Your task to perform on an android device: open app "Adobe Acrobat Reader: Edit PDF" Image 0: 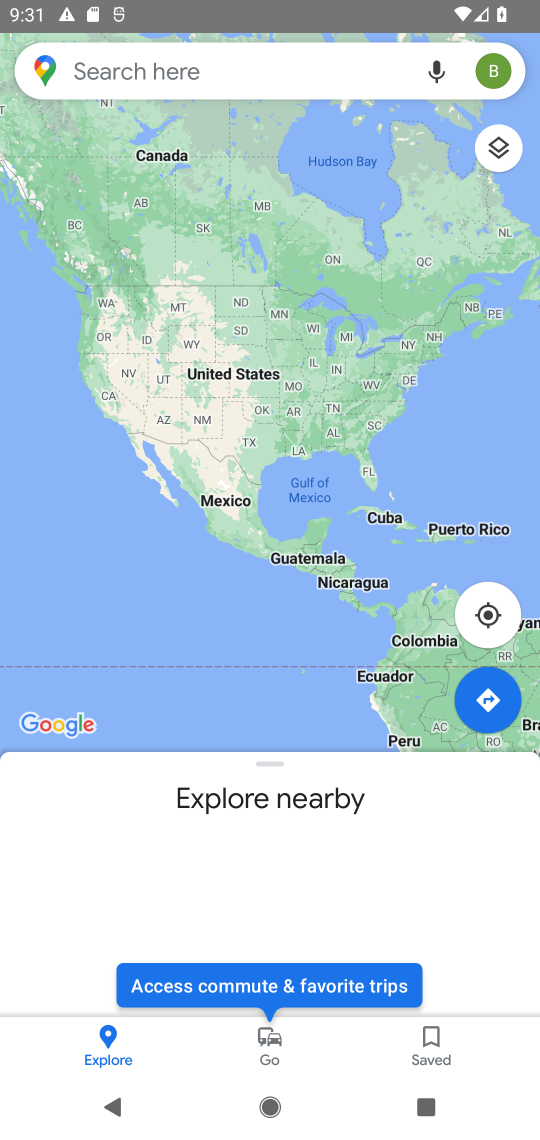
Step 0: press home button
Your task to perform on an android device: open app "Adobe Acrobat Reader: Edit PDF" Image 1: 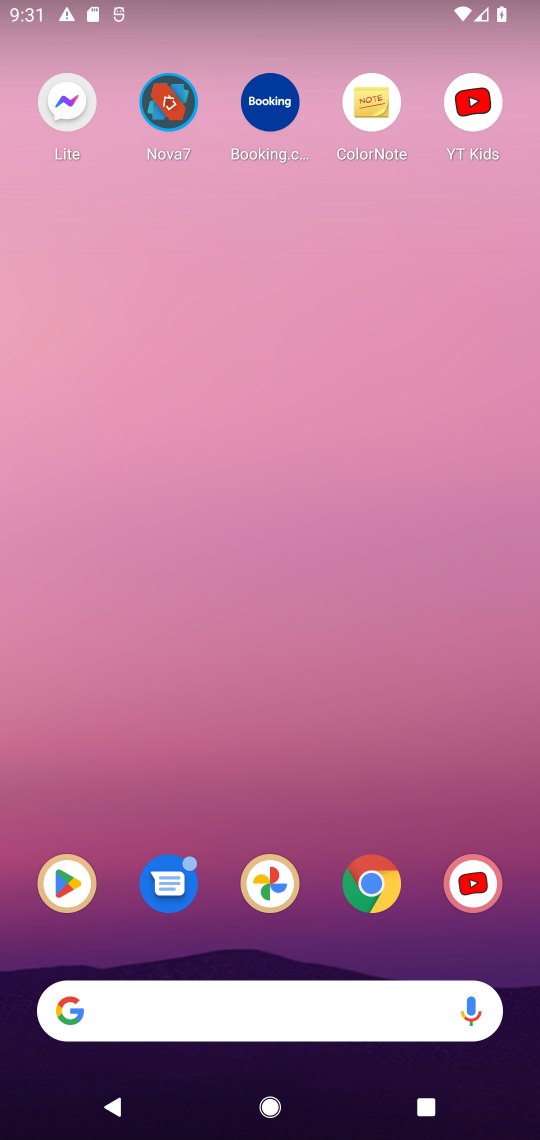
Step 1: click (46, 878)
Your task to perform on an android device: open app "Adobe Acrobat Reader: Edit PDF" Image 2: 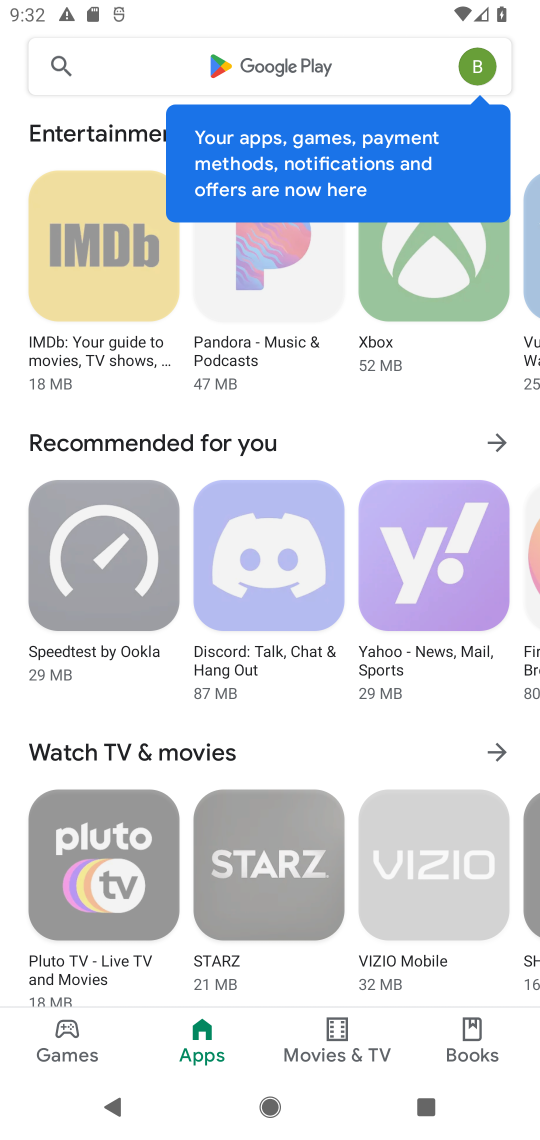
Step 2: click (199, 63)
Your task to perform on an android device: open app "Adobe Acrobat Reader: Edit PDF" Image 3: 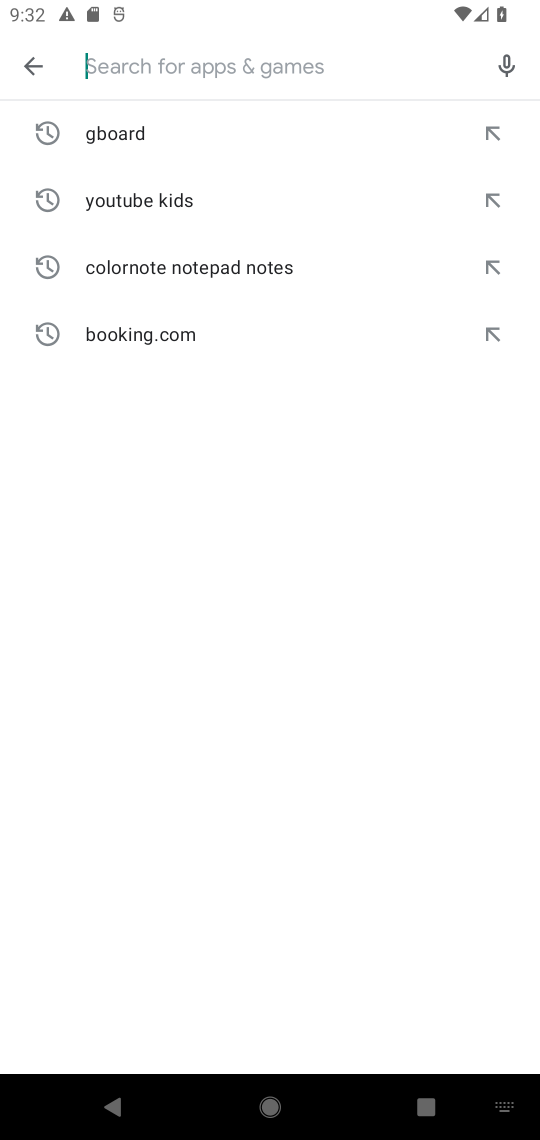
Step 3: type "Adobe Acrobat Reader"
Your task to perform on an android device: open app "Adobe Acrobat Reader: Edit PDF" Image 4: 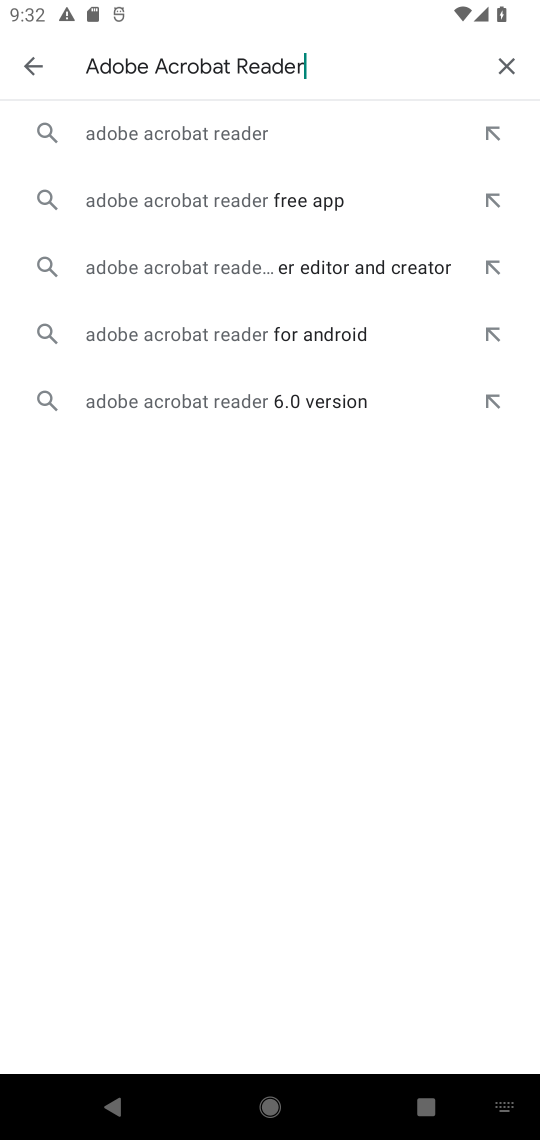
Step 4: click (194, 139)
Your task to perform on an android device: open app "Adobe Acrobat Reader: Edit PDF" Image 5: 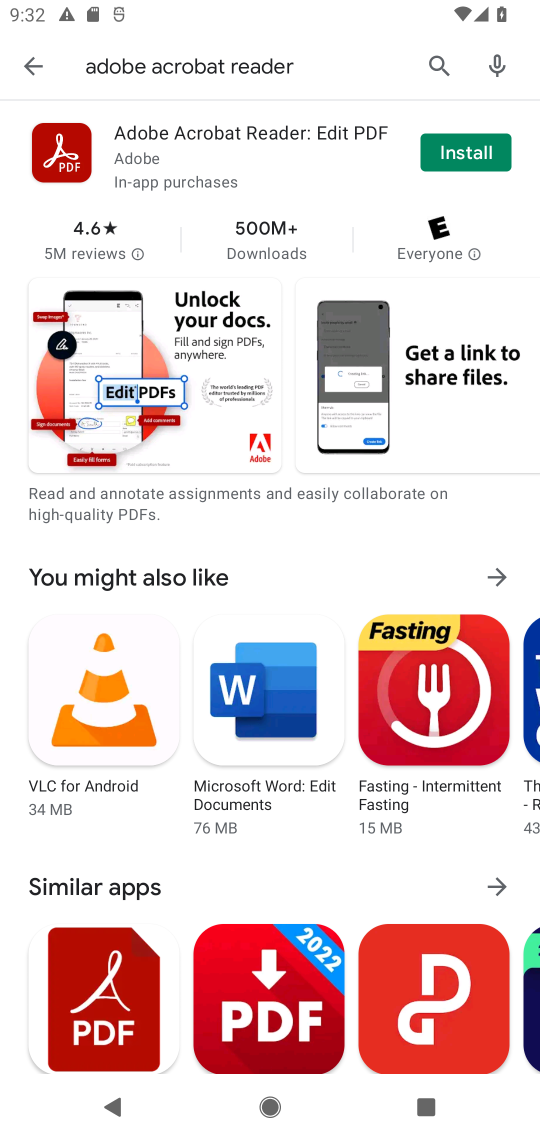
Step 5: task complete